Your task to perform on an android device: Open wifi settings Image 0: 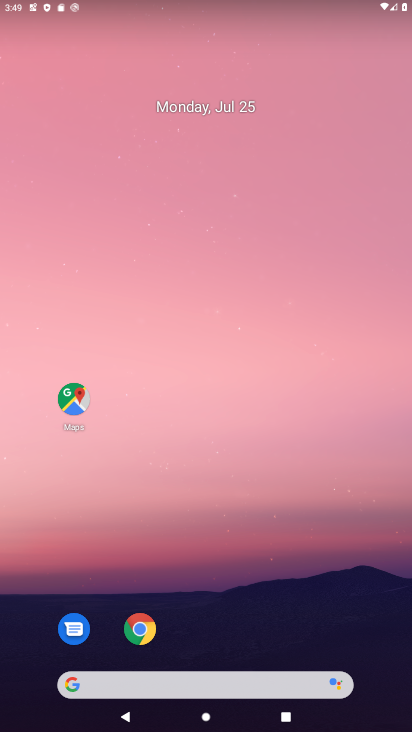
Step 0: drag from (285, 541) to (326, 17)
Your task to perform on an android device: Open wifi settings Image 1: 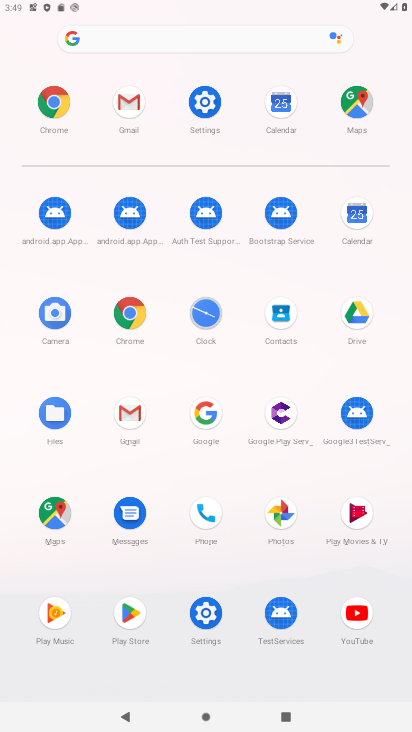
Step 1: click (207, 91)
Your task to perform on an android device: Open wifi settings Image 2: 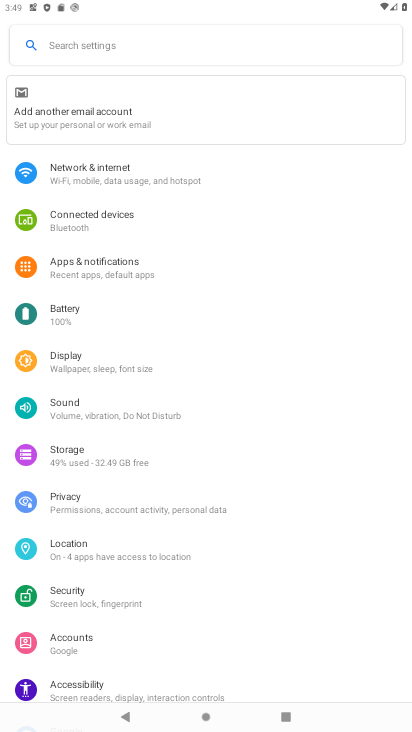
Step 2: click (116, 171)
Your task to perform on an android device: Open wifi settings Image 3: 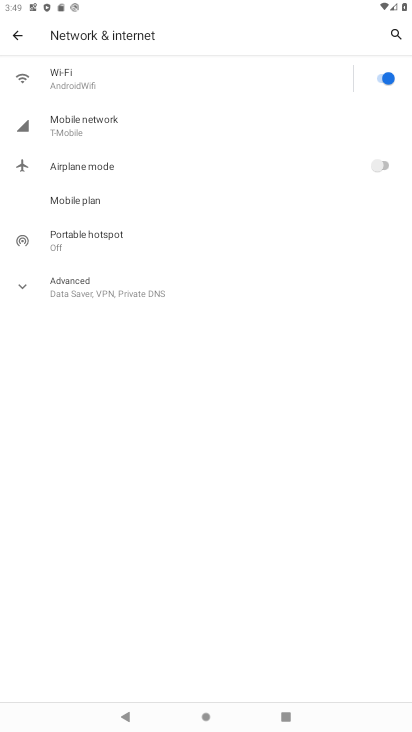
Step 3: task complete